Your task to perform on an android device: Go to battery settings Image 0: 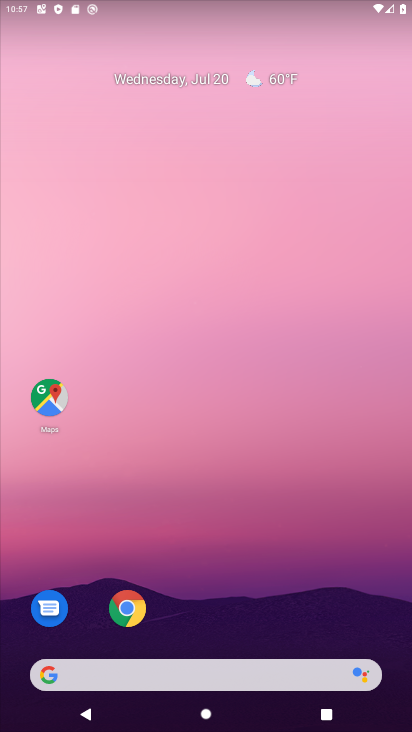
Step 0: drag from (248, 586) to (276, 6)
Your task to perform on an android device: Go to battery settings Image 1: 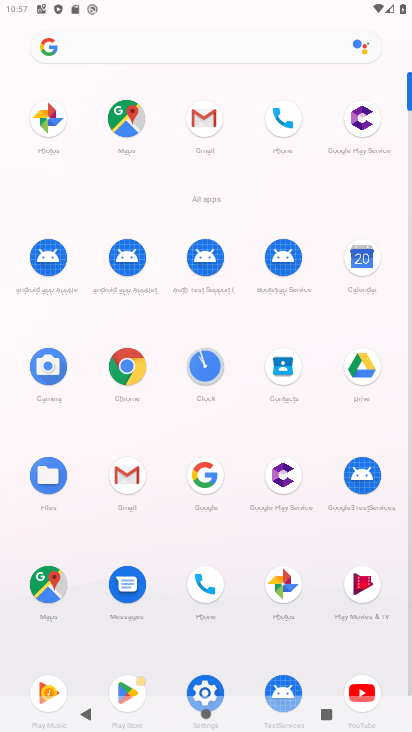
Step 1: click (205, 680)
Your task to perform on an android device: Go to battery settings Image 2: 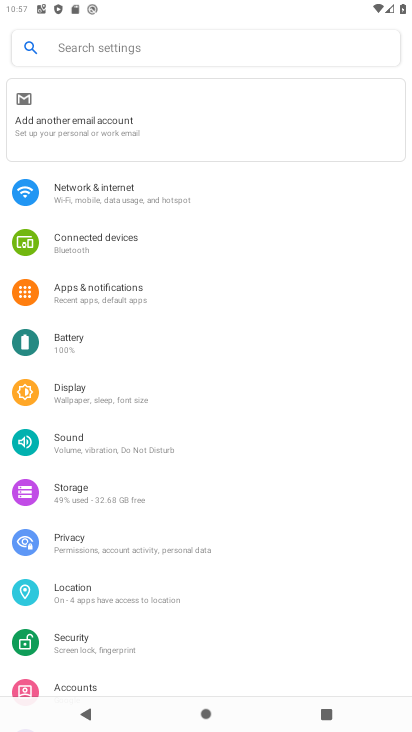
Step 2: click (81, 347)
Your task to perform on an android device: Go to battery settings Image 3: 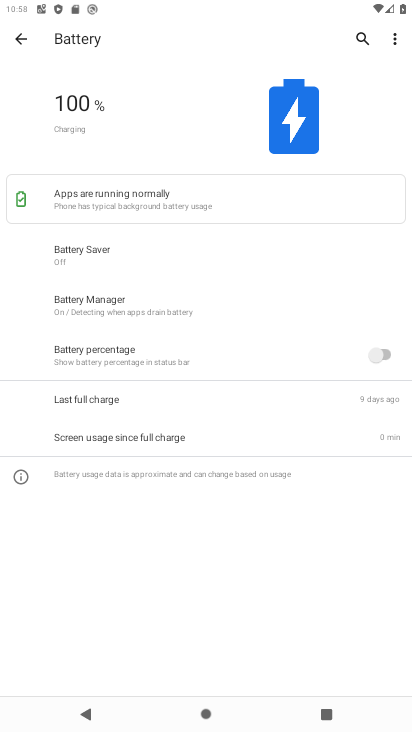
Step 3: task complete